Your task to perform on an android device: check data usage Image 0: 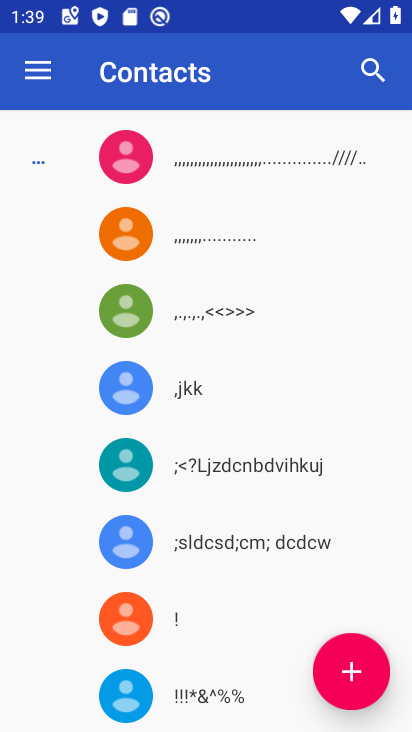
Step 0: press home button
Your task to perform on an android device: check data usage Image 1: 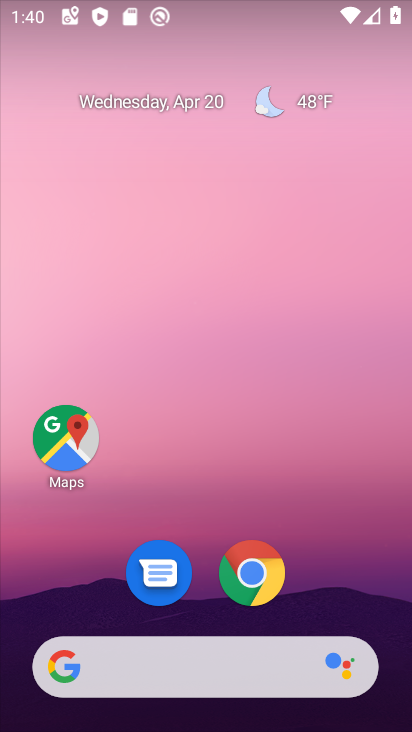
Step 1: drag from (132, 648) to (313, 49)
Your task to perform on an android device: check data usage Image 2: 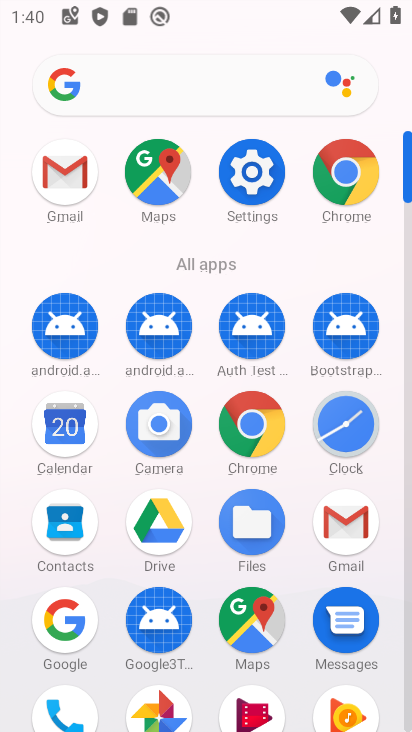
Step 2: click (256, 180)
Your task to perform on an android device: check data usage Image 3: 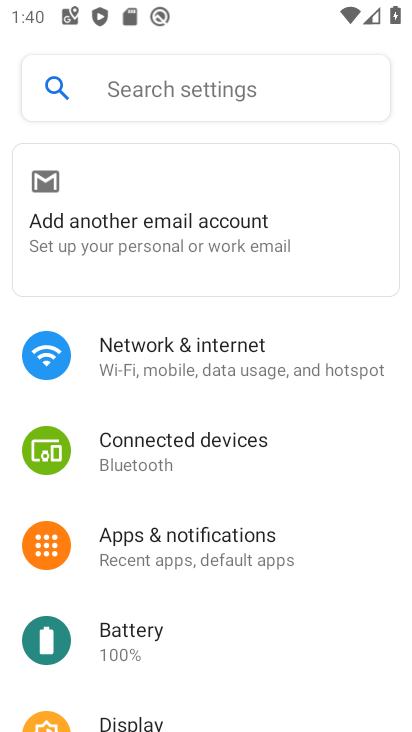
Step 3: click (199, 360)
Your task to perform on an android device: check data usage Image 4: 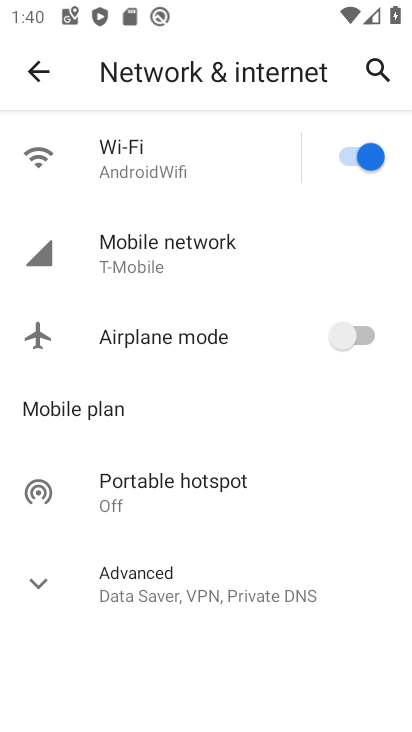
Step 4: click (193, 163)
Your task to perform on an android device: check data usage Image 5: 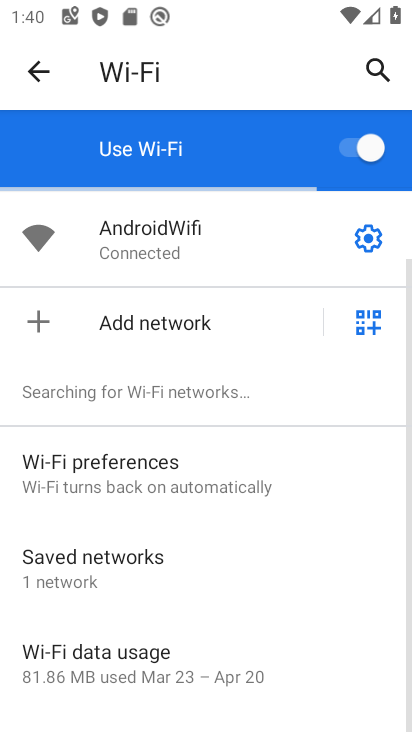
Step 5: click (140, 659)
Your task to perform on an android device: check data usage Image 6: 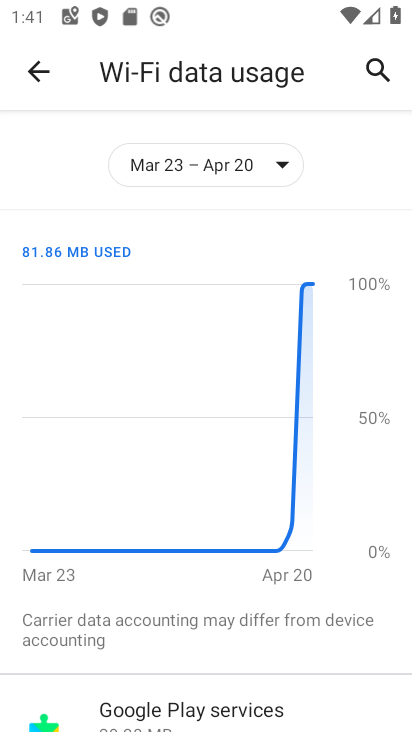
Step 6: task complete